Your task to perform on an android device: What is the recent news? Image 0: 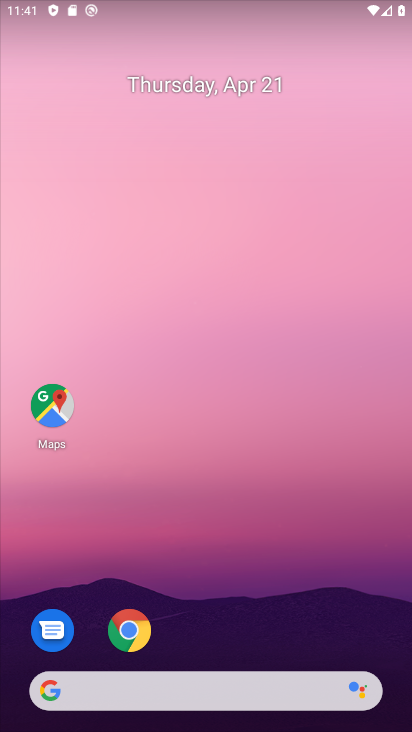
Step 0: drag from (183, 665) to (207, 284)
Your task to perform on an android device: What is the recent news? Image 1: 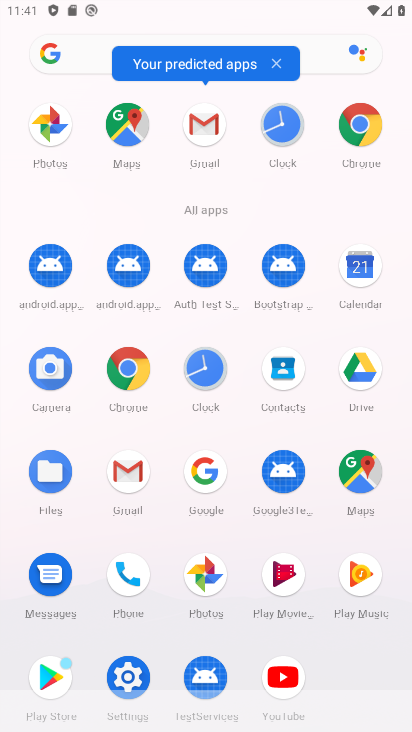
Step 1: click (209, 466)
Your task to perform on an android device: What is the recent news? Image 2: 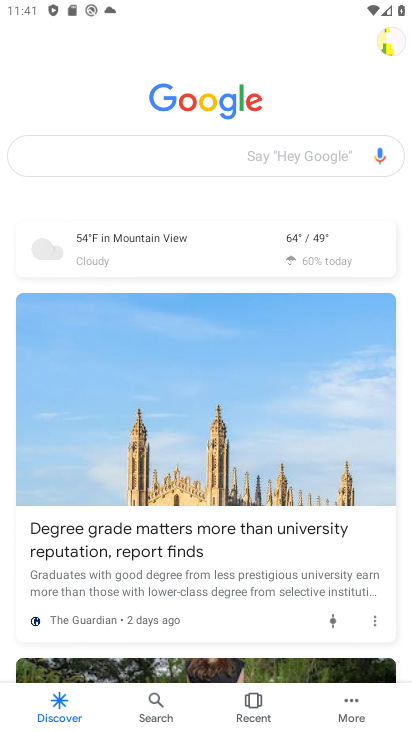
Step 2: click (187, 152)
Your task to perform on an android device: What is the recent news? Image 3: 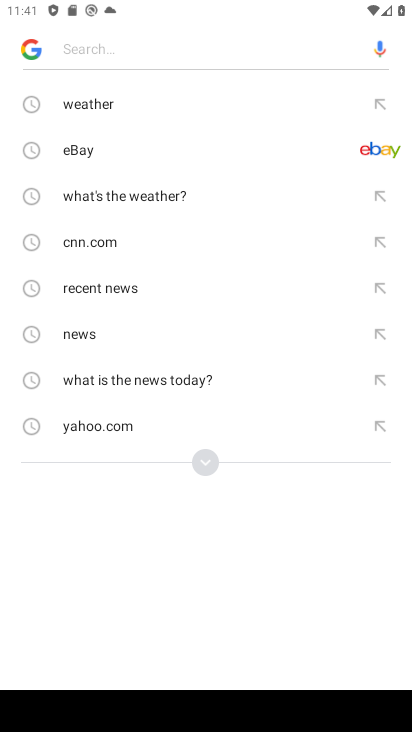
Step 3: click (96, 285)
Your task to perform on an android device: What is the recent news? Image 4: 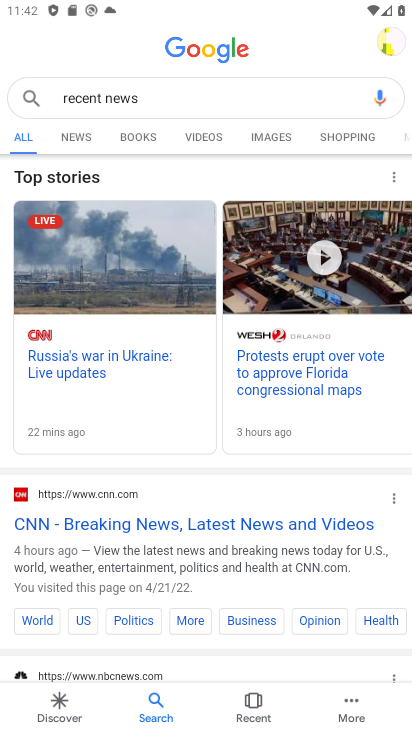
Step 4: task complete